Your task to perform on an android device: Open network settings Image 0: 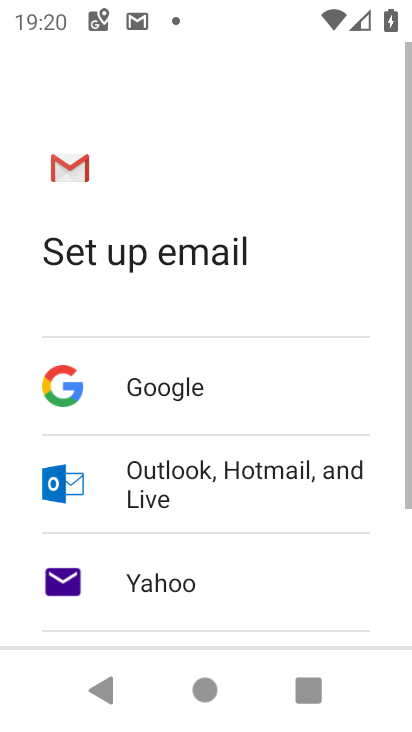
Step 0: press home button
Your task to perform on an android device: Open network settings Image 1: 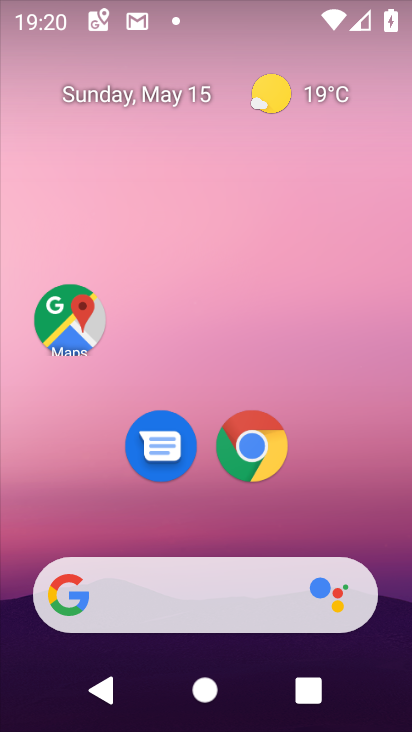
Step 1: drag from (230, 646) to (224, 216)
Your task to perform on an android device: Open network settings Image 2: 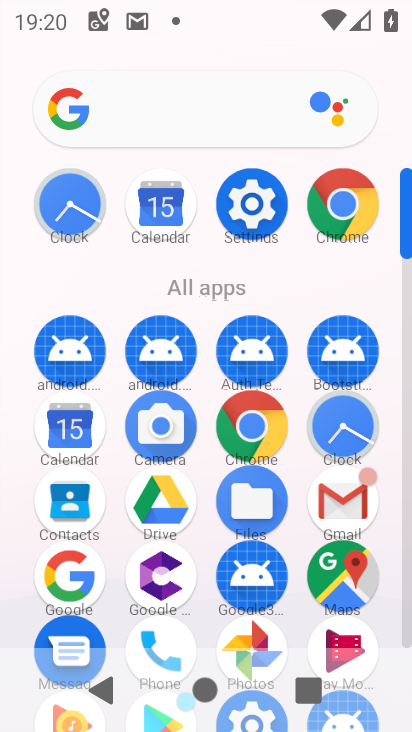
Step 2: click (228, 215)
Your task to perform on an android device: Open network settings Image 3: 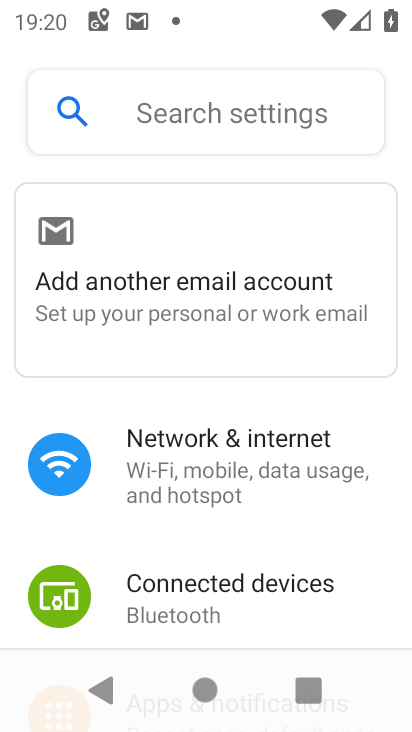
Step 3: click (245, 437)
Your task to perform on an android device: Open network settings Image 4: 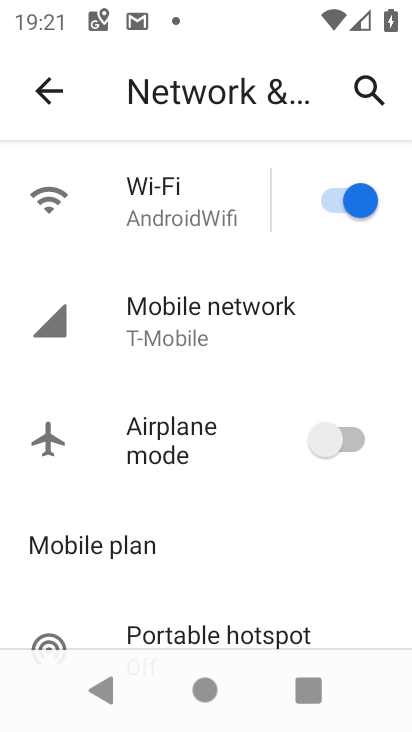
Step 4: task complete